Your task to perform on an android device: Open the map Image 0: 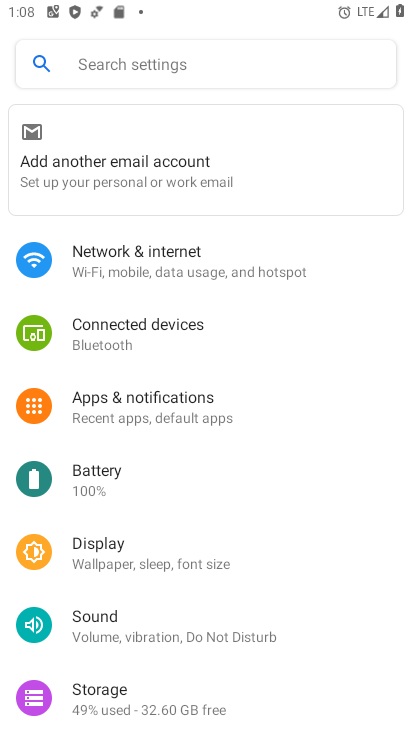
Step 0: press back button
Your task to perform on an android device: Open the map Image 1: 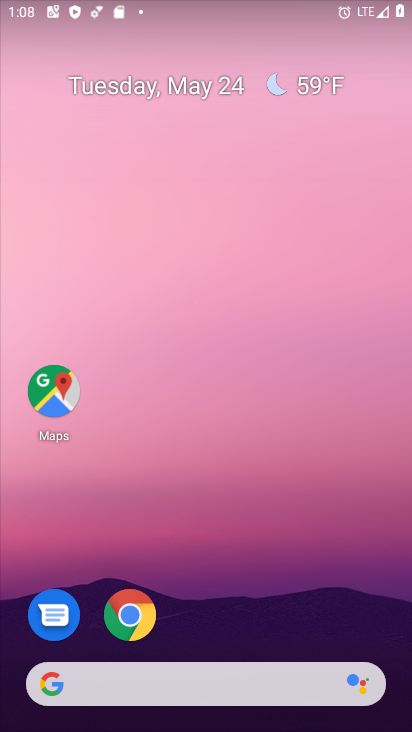
Step 1: click (53, 386)
Your task to perform on an android device: Open the map Image 2: 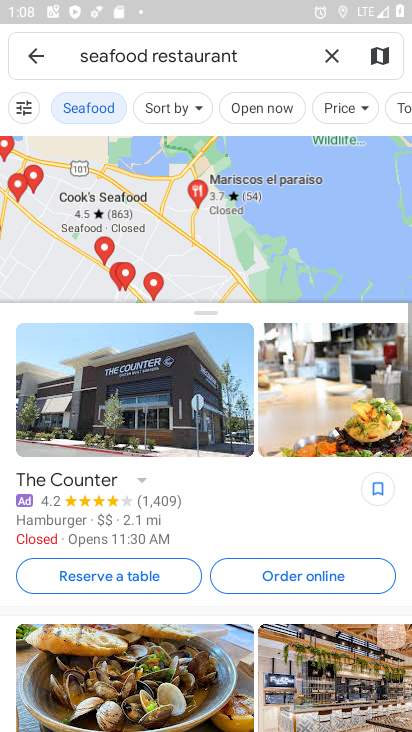
Step 2: click (329, 54)
Your task to perform on an android device: Open the map Image 3: 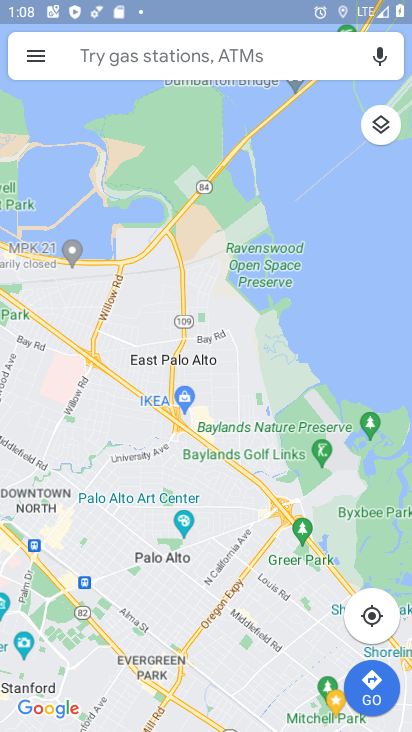
Step 3: task complete